Your task to perform on an android device: turn on the 24-hour format for clock Image 0: 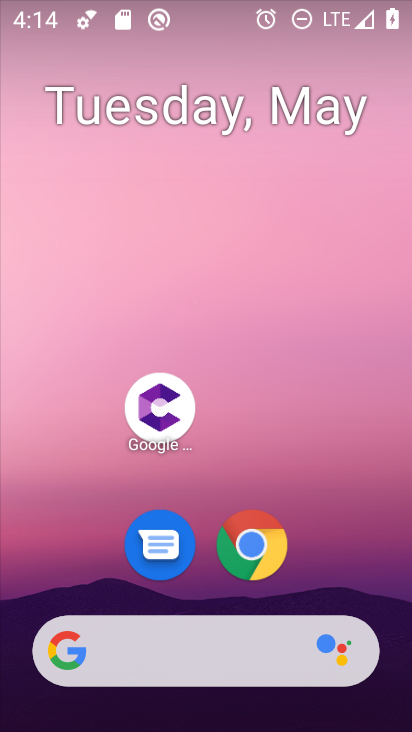
Step 0: drag from (357, 566) to (352, 173)
Your task to perform on an android device: turn on the 24-hour format for clock Image 1: 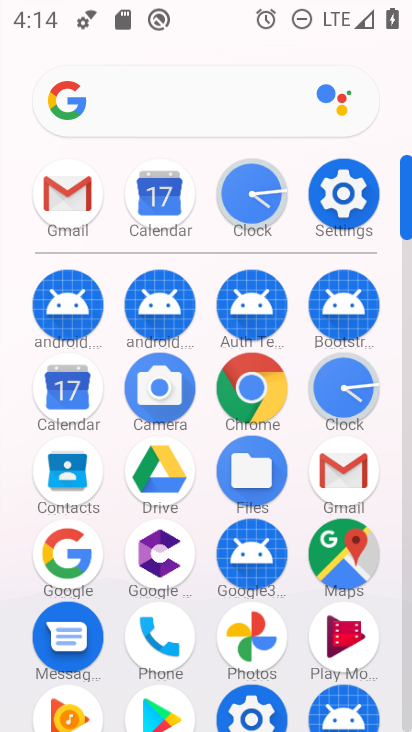
Step 1: click (350, 402)
Your task to perform on an android device: turn on the 24-hour format for clock Image 2: 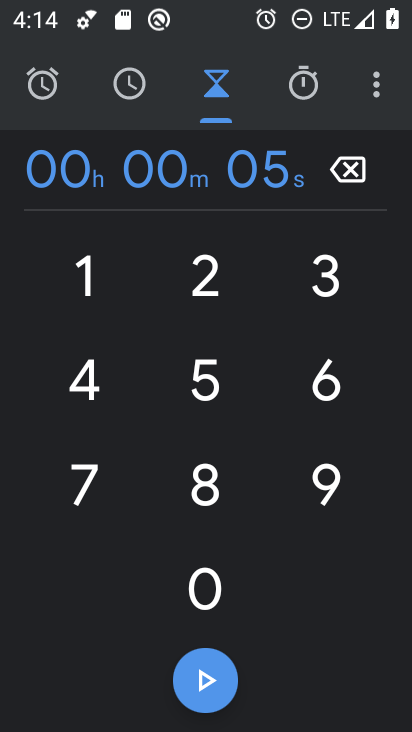
Step 2: click (376, 82)
Your task to perform on an android device: turn on the 24-hour format for clock Image 3: 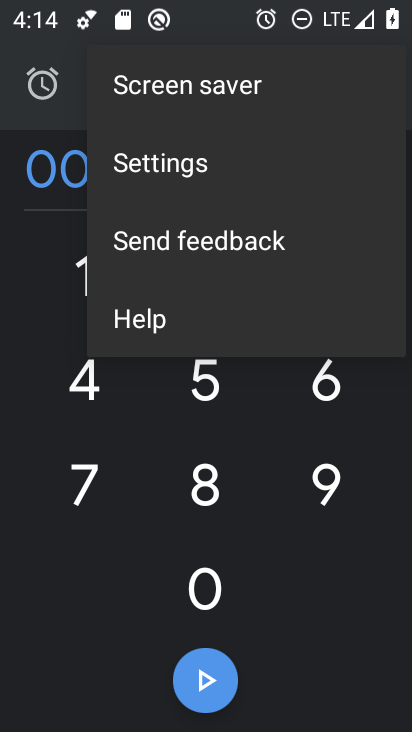
Step 3: click (183, 163)
Your task to perform on an android device: turn on the 24-hour format for clock Image 4: 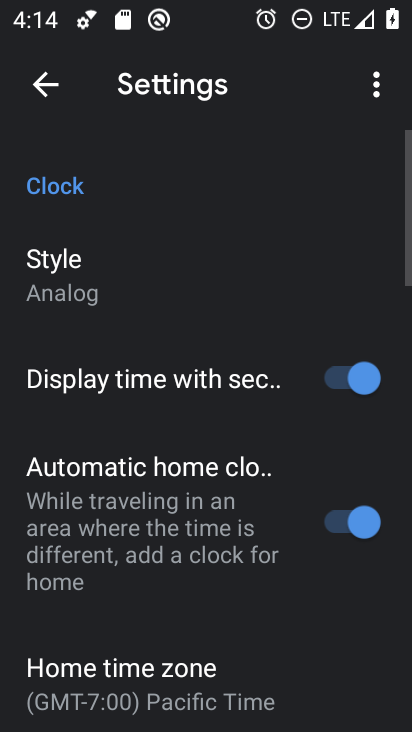
Step 4: drag from (317, 610) to (307, 466)
Your task to perform on an android device: turn on the 24-hour format for clock Image 5: 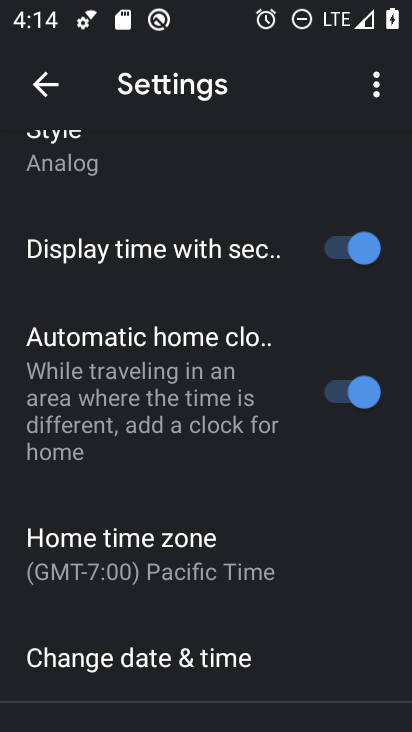
Step 5: drag from (303, 594) to (290, 473)
Your task to perform on an android device: turn on the 24-hour format for clock Image 6: 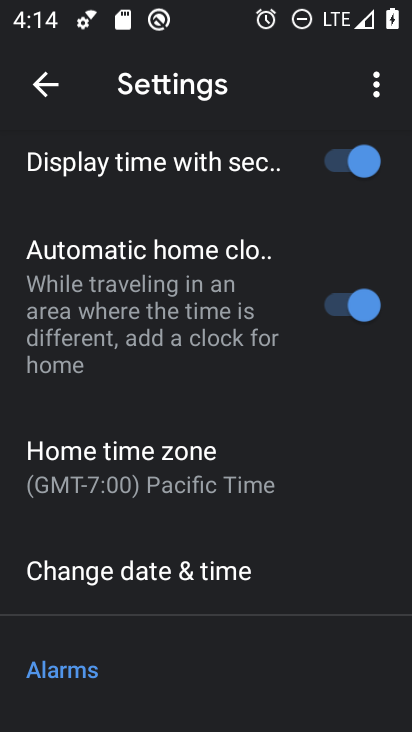
Step 6: drag from (291, 625) to (290, 488)
Your task to perform on an android device: turn on the 24-hour format for clock Image 7: 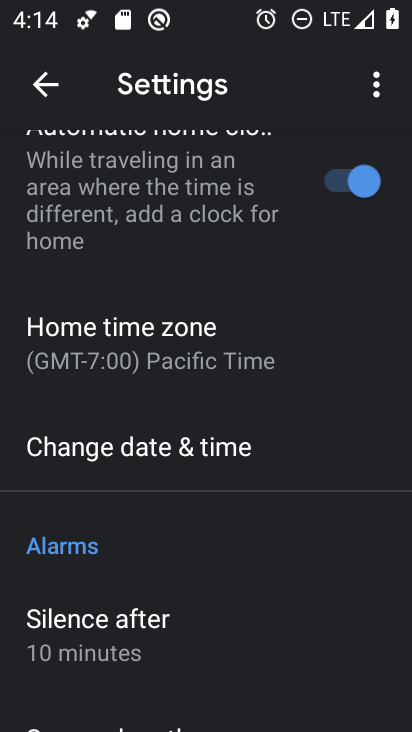
Step 7: drag from (276, 611) to (295, 502)
Your task to perform on an android device: turn on the 24-hour format for clock Image 8: 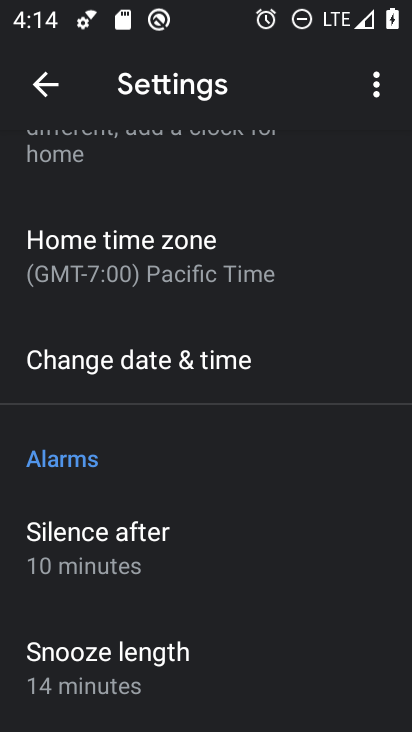
Step 8: drag from (293, 636) to (303, 471)
Your task to perform on an android device: turn on the 24-hour format for clock Image 9: 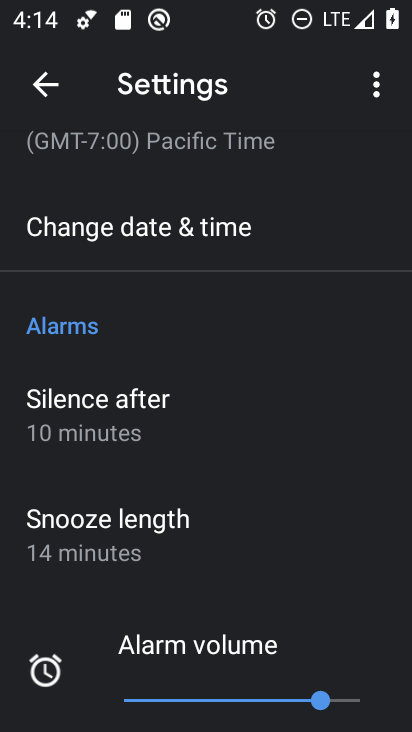
Step 9: drag from (305, 566) to (330, 454)
Your task to perform on an android device: turn on the 24-hour format for clock Image 10: 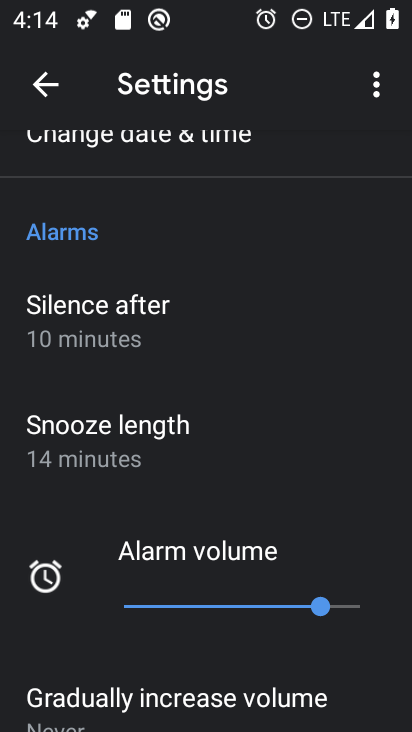
Step 10: drag from (282, 635) to (294, 463)
Your task to perform on an android device: turn on the 24-hour format for clock Image 11: 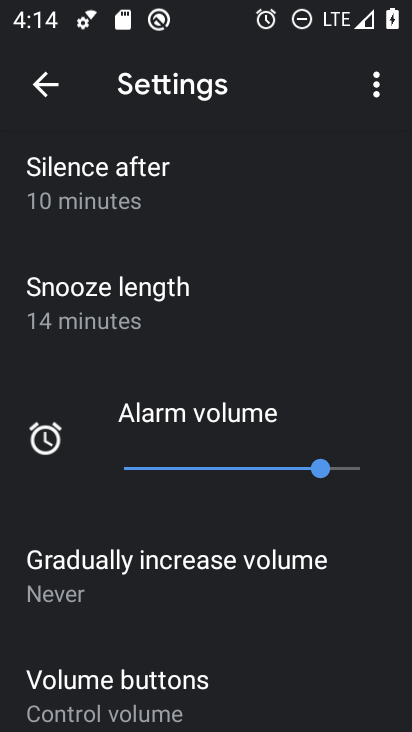
Step 11: drag from (272, 641) to (297, 474)
Your task to perform on an android device: turn on the 24-hour format for clock Image 12: 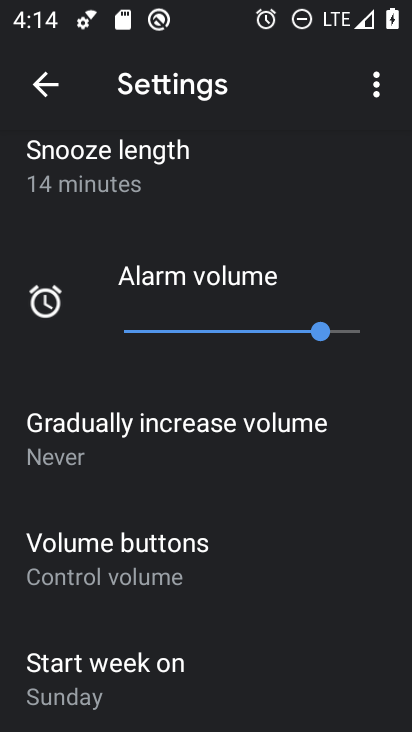
Step 12: drag from (296, 627) to (305, 449)
Your task to perform on an android device: turn on the 24-hour format for clock Image 13: 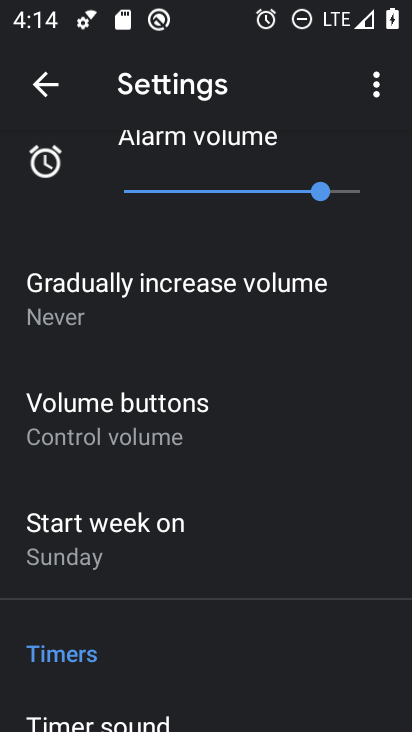
Step 13: drag from (278, 626) to (275, 475)
Your task to perform on an android device: turn on the 24-hour format for clock Image 14: 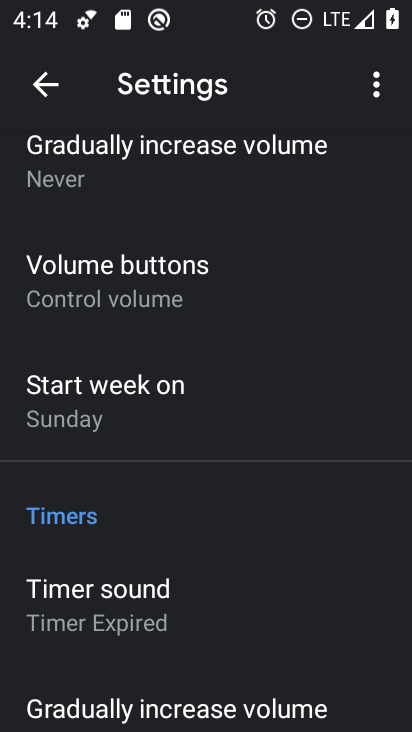
Step 14: drag from (278, 635) to (274, 546)
Your task to perform on an android device: turn on the 24-hour format for clock Image 15: 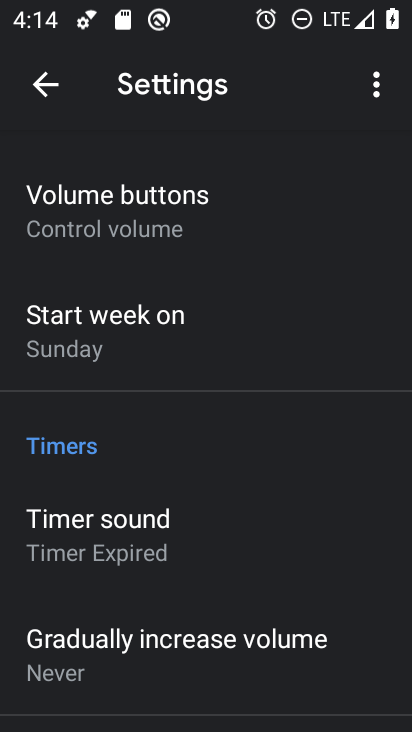
Step 15: drag from (294, 404) to (295, 524)
Your task to perform on an android device: turn on the 24-hour format for clock Image 16: 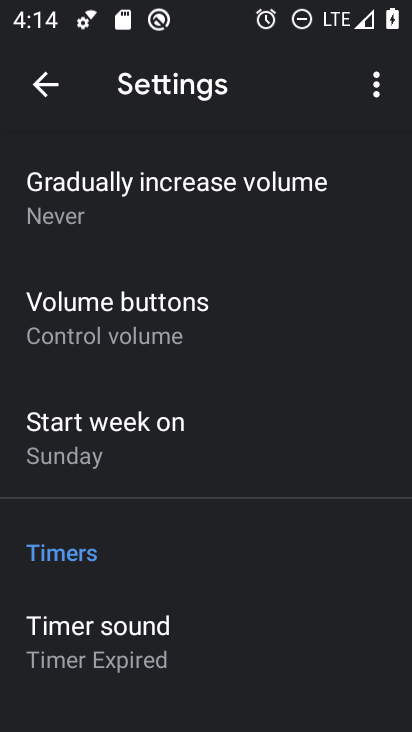
Step 16: drag from (302, 343) to (312, 471)
Your task to perform on an android device: turn on the 24-hour format for clock Image 17: 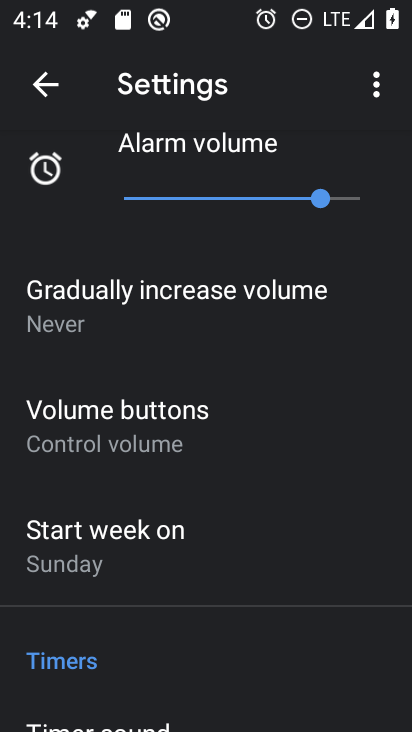
Step 17: drag from (338, 277) to (348, 414)
Your task to perform on an android device: turn on the 24-hour format for clock Image 18: 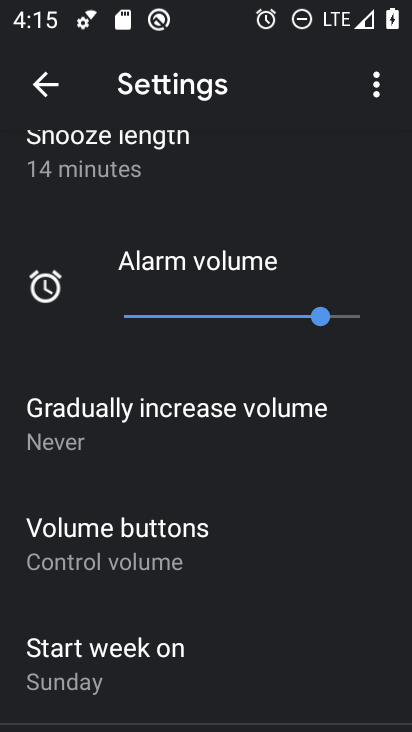
Step 18: drag from (337, 230) to (340, 384)
Your task to perform on an android device: turn on the 24-hour format for clock Image 19: 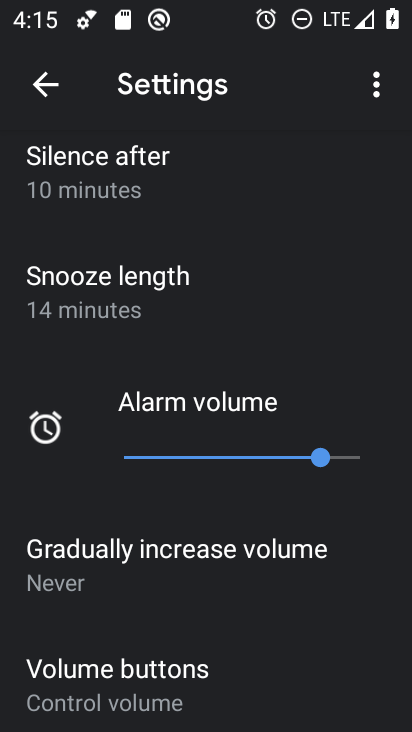
Step 19: drag from (306, 226) to (300, 363)
Your task to perform on an android device: turn on the 24-hour format for clock Image 20: 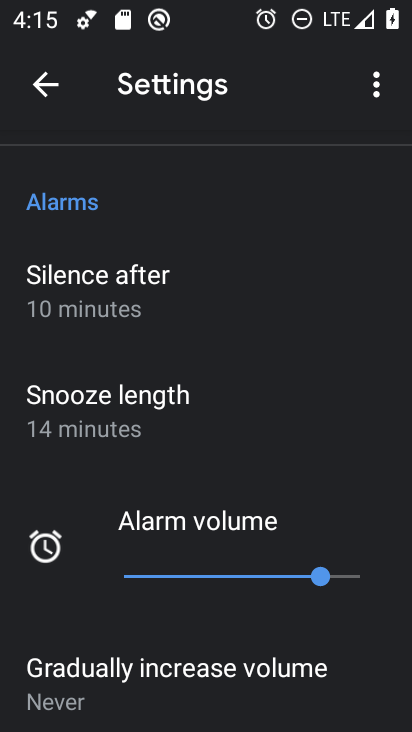
Step 20: drag from (287, 236) to (283, 405)
Your task to perform on an android device: turn on the 24-hour format for clock Image 21: 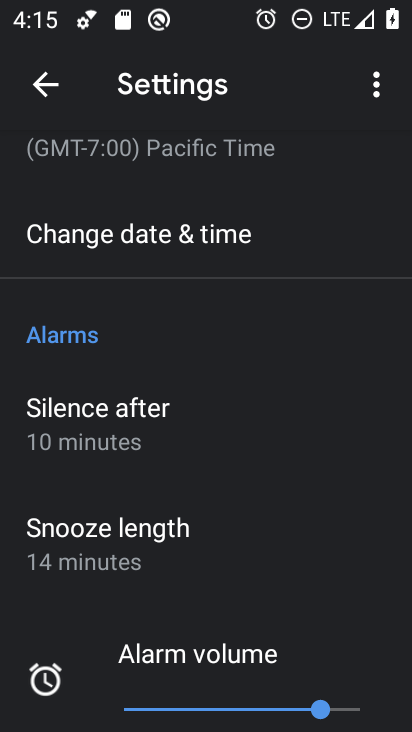
Step 21: click (217, 249)
Your task to perform on an android device: turn on the 24-hour format for clock Image 22: 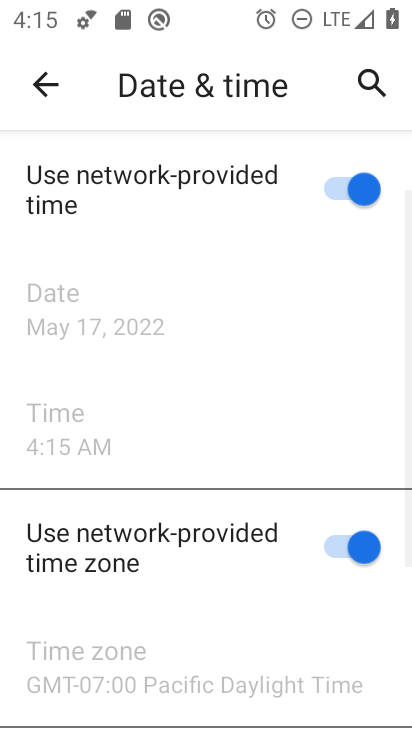
Step 22: drag from (263, 492) to (258, 367)
Your task to perform on an android device: turn on the 24-hour format for clock Image 23: 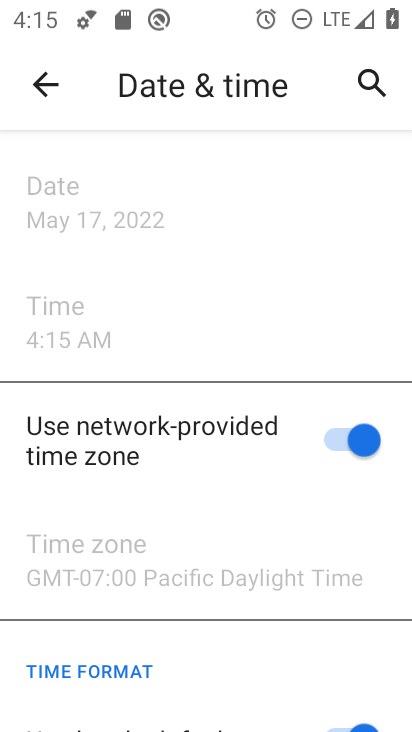
Step 23: drag from (247, 528) to (261, 317)
Your task to perform on an android device: turn on the 24-hour format for clock Image 24: 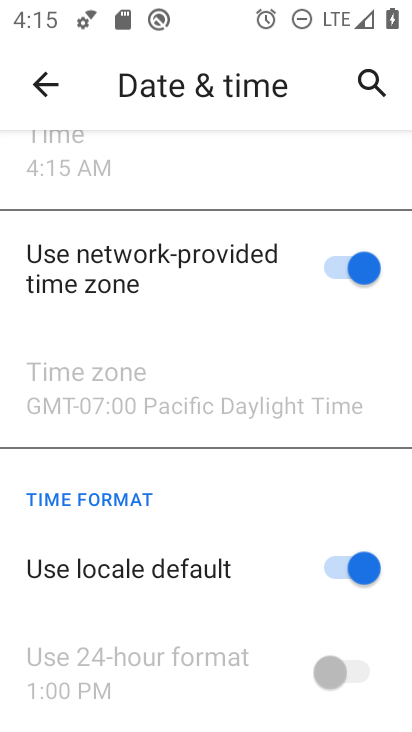
Step 24: drag from (267, 605) to (268, 401)
Your task to perform on an android device: turn on the 24-hour format for clock Image 25: 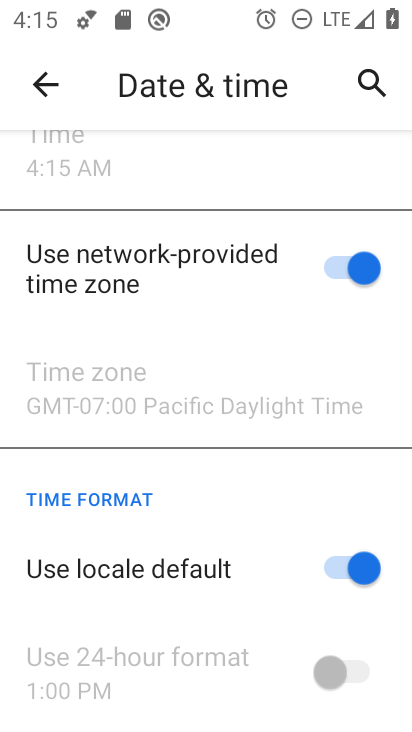
Step 25: click (349, 561)
Your task to perform on an android device: turn on the 24-hour format for clock Image 26: 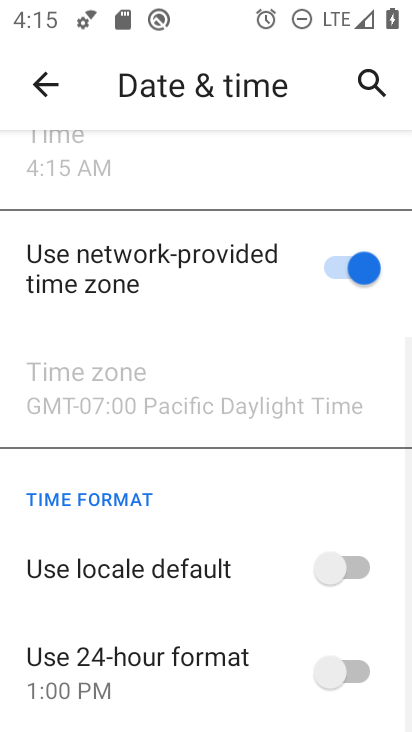
Step 26: click (318, 676)
Your task to perform on an android device: turn on the 24-hour format for clock Image 27: 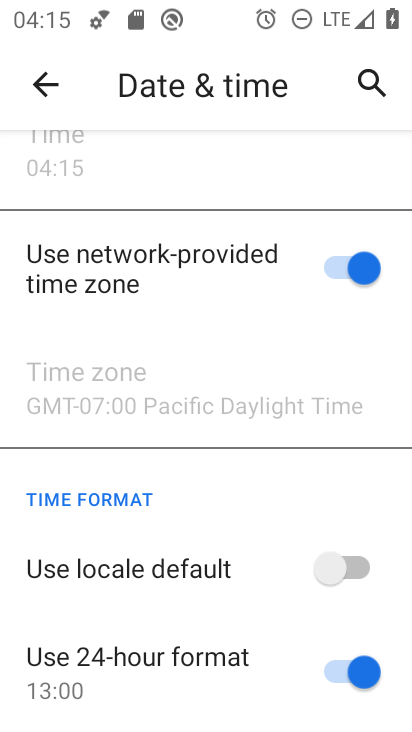
Step 27: task complete